Your task to perform on an android device: turn on the 12-hour format for clock Image 0: 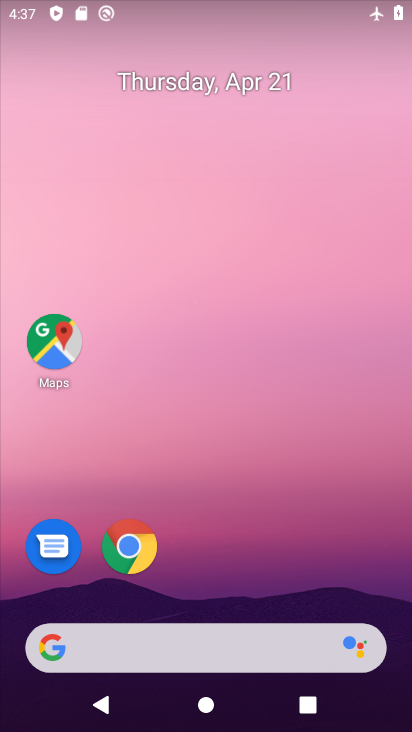
Step 0: drag from (264, 407) to (233, 108)
Your task to perform on an android device: turn on the 12-hour format for clock Image 1: 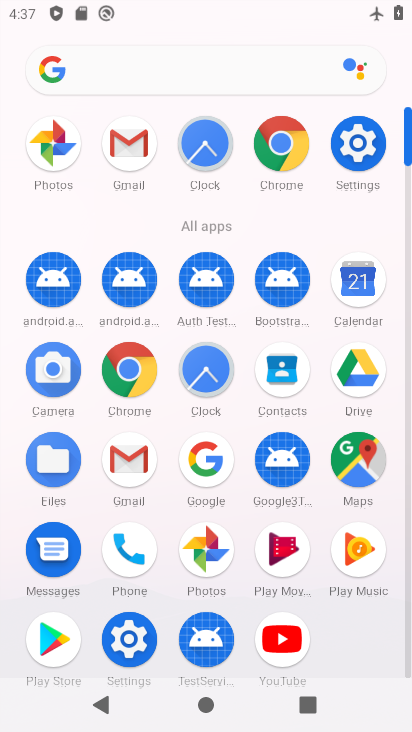
Step 1: click (206, 366)
Your task to perform on an android device: turn on the 12-hour format for clock Image 2: 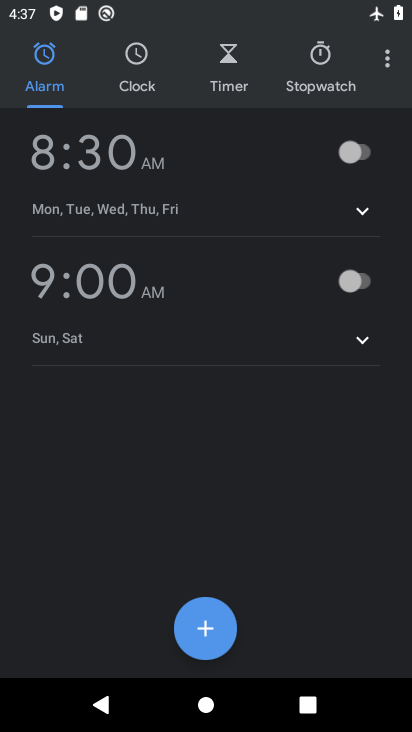
Step 2: click (387, 58)
Your task to perform on an android device: turn on the 12-hour format for clock Image 3: 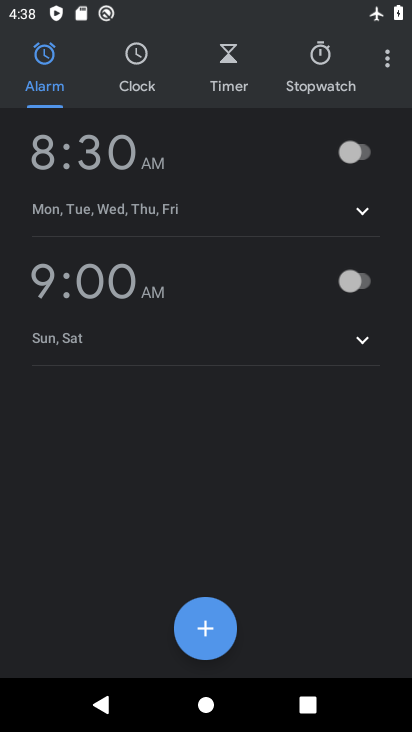
Step 3: click (393, 67)
Your task to perform on an android device: turn on the 12-hour format for clock Image 4: 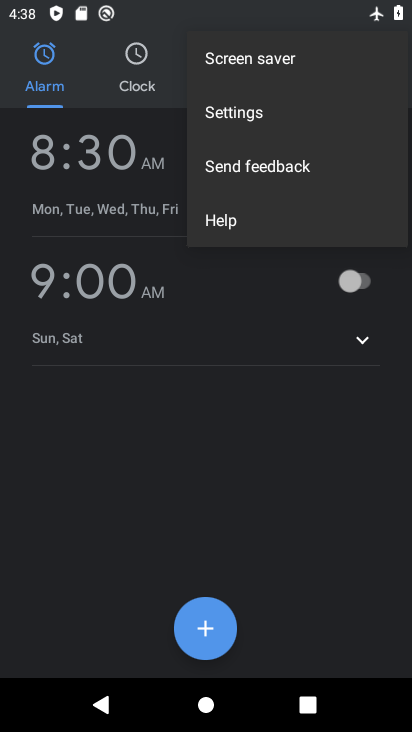
Step 4: click (224, 111)
Your task to perform on an android device: turn on the 12-hour format for clock Image 5: 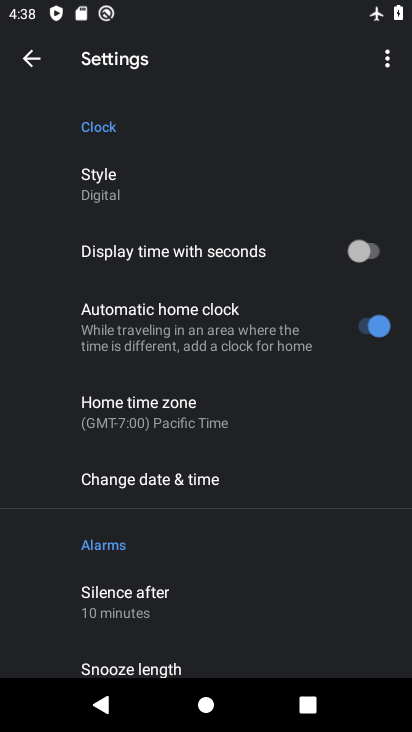
Step 5: click (171, 478)
Your task to perform on an android device: turn on the 12-hour format for clock Image 6: 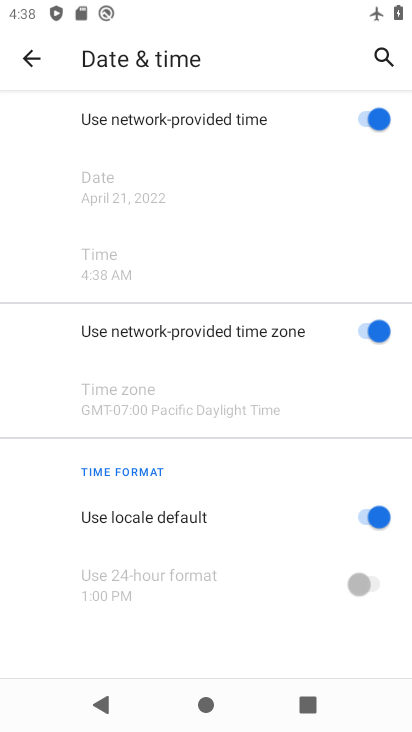
Step 6: task complete